Your task to perform on an android device: check android version Image 0: 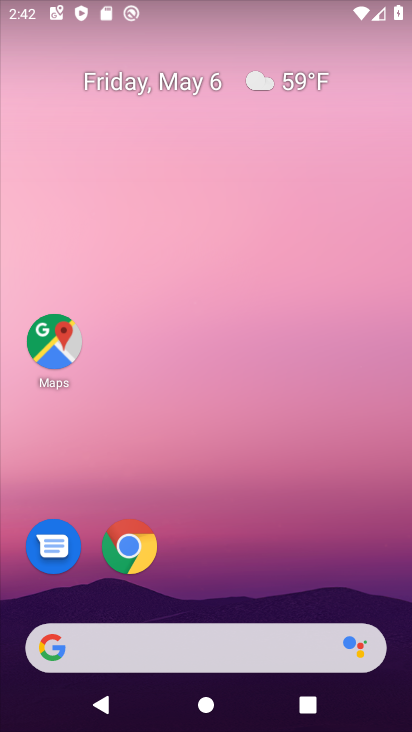
Step 0: drag from (254, 566) to (256, 60)
Your task to perform on an android device: check android version Image 1: 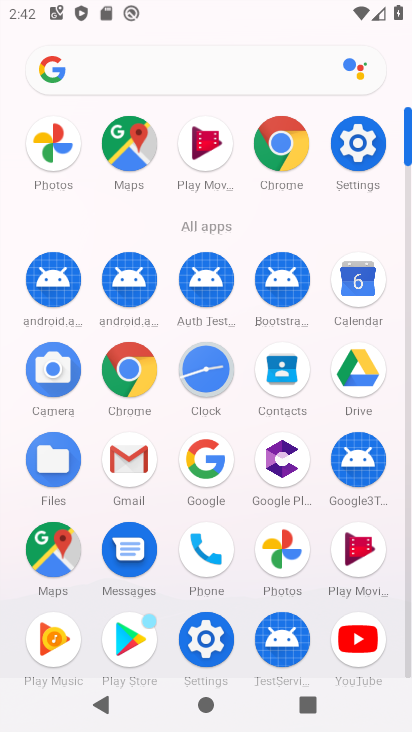
Step 1: click (209, 639)
Your task to perform on an android device: check android version Image 2: 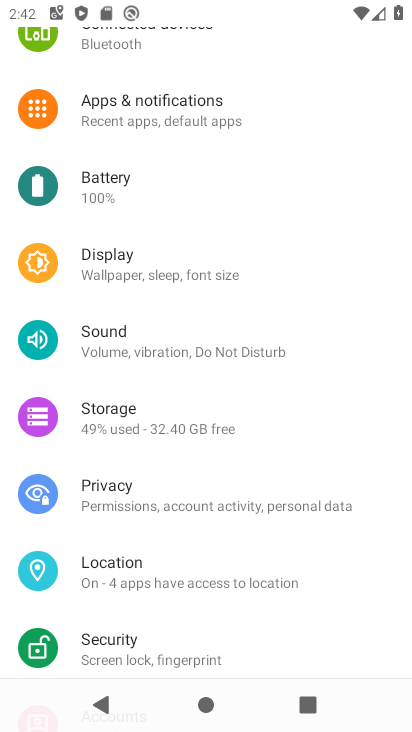
Step 2: drag from (222, 630) to (247, 277)
Your task to perform on an android device: check android version Image 3: 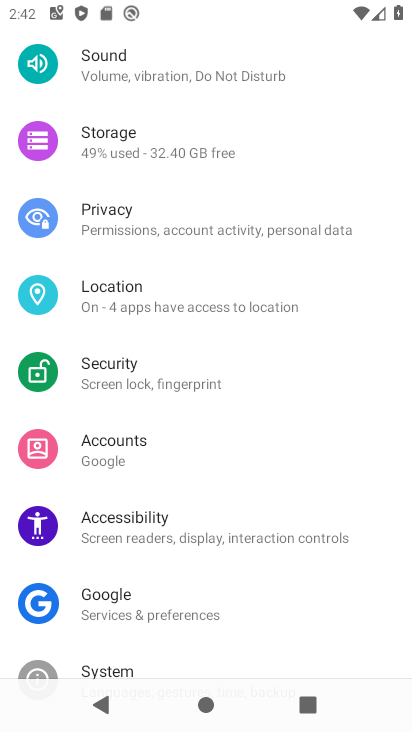
Step 3: drag from (231, 587) to (254, 242)
Your task to perform on an android device: check android version Image 4: 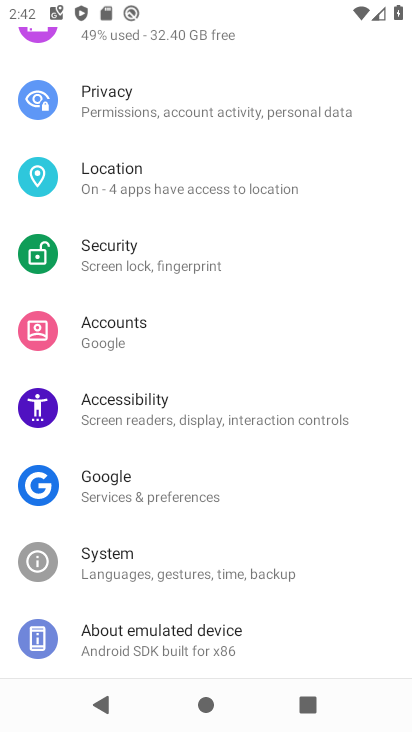
Step 4: click (210, 631)
Your task to perform on an android device: check android version Image 5: 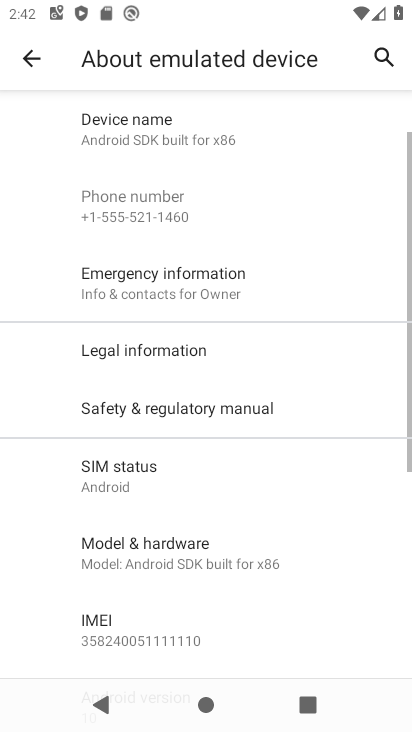
Step 5: drag from (228, 590) to (265, 321)
Your task to perform on an android device: check android version Image 6: 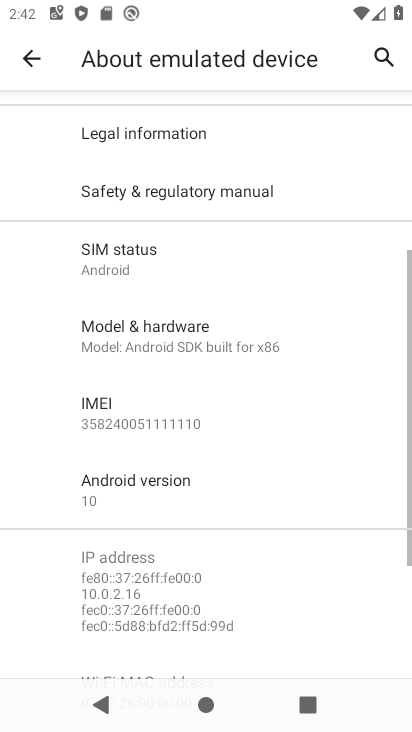
Step 6: click (135, 496)
Your task to perform on an android device: check android version Image 7: 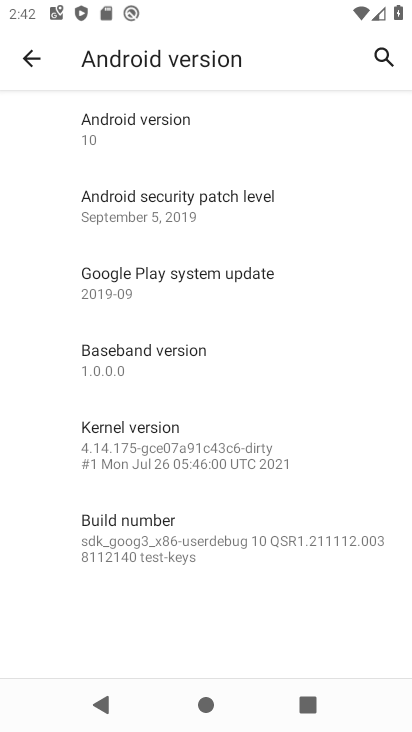
Step 7: task complete